Your task to perform on an android device: change notifications settings Image 0: 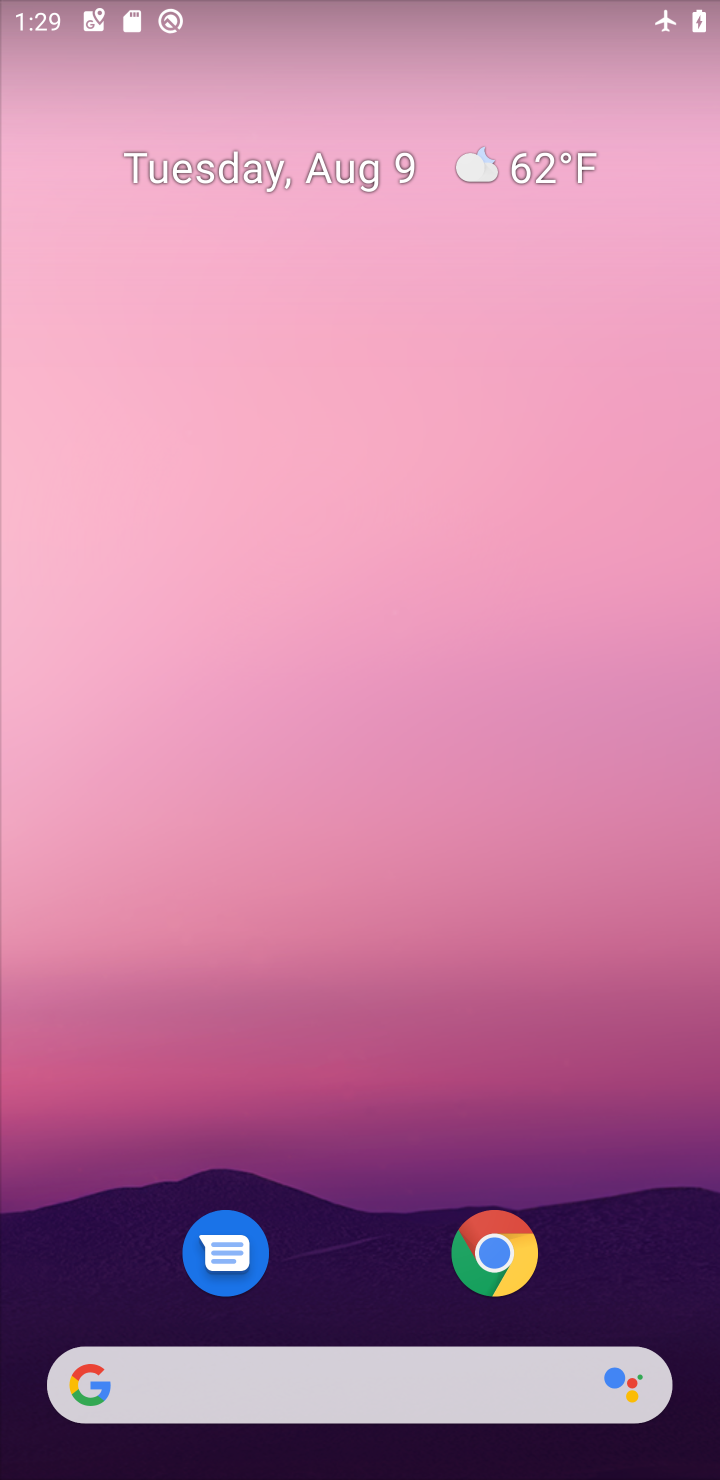
Step 0: drag from (682, 1210) to (339, 40)
Your task to perform on an android device: change notifications settings Image 1: 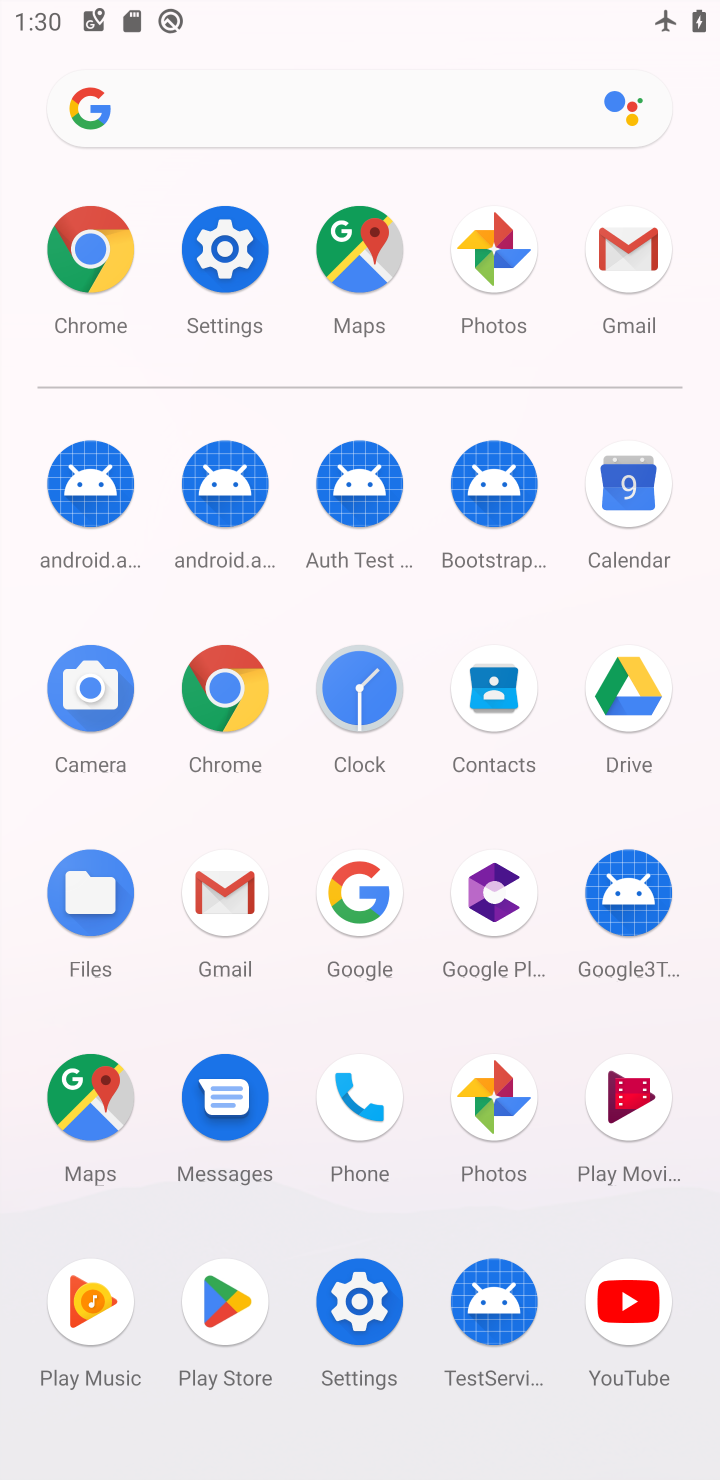
Step 1: click (368, 1276)
Your task to perform on an android device: change notifications settings Image 2: 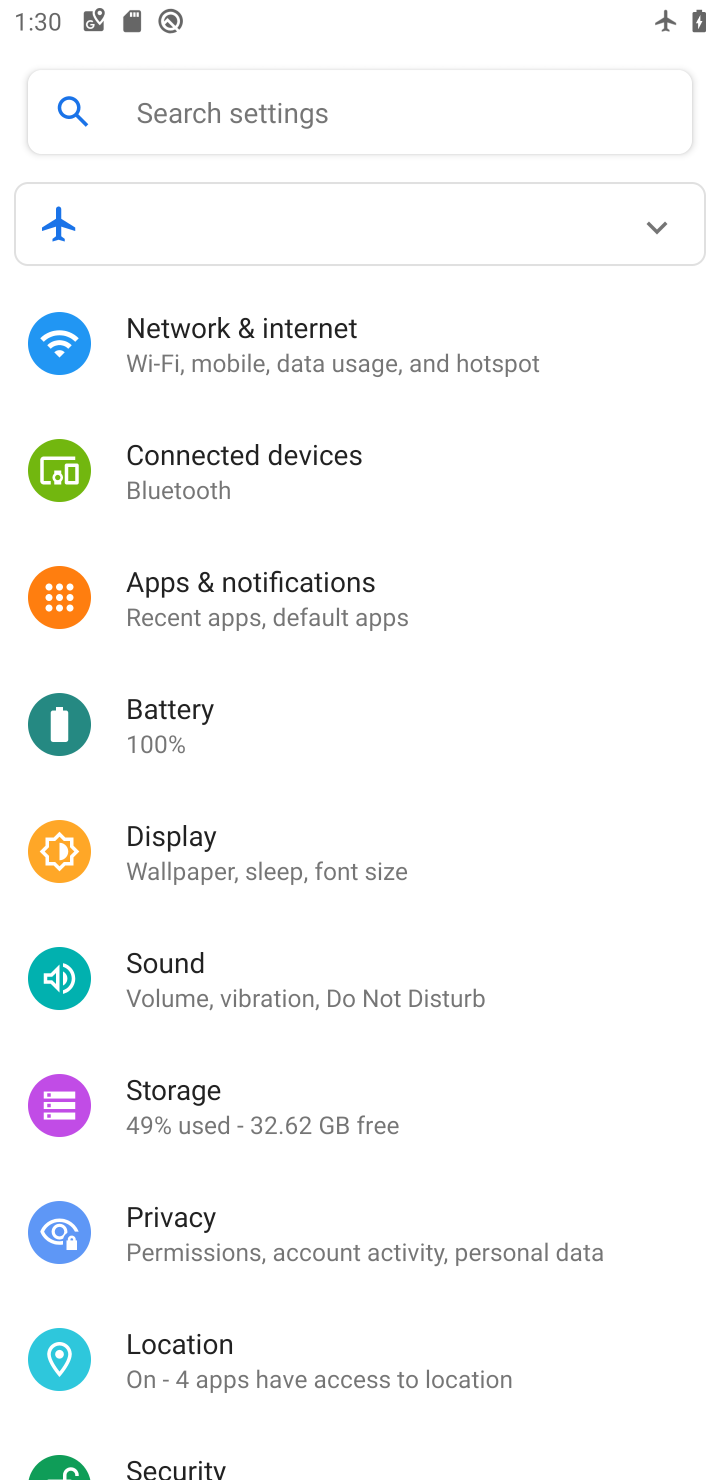
Step 2: click (293, 607)
Your task to perform on an android device: change notifications settings Image 3: 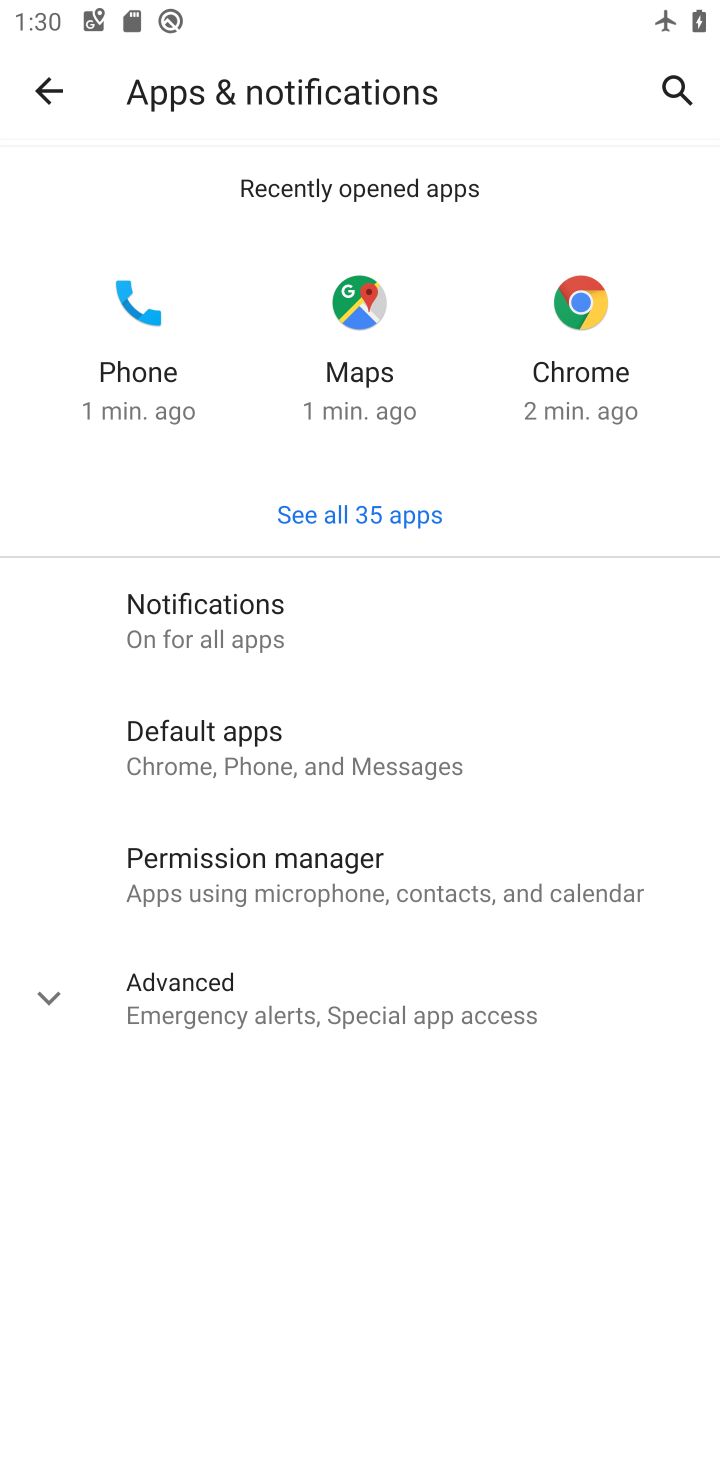
Step 3: task complete